Your task to perform on an android device: Search for the best gaming mouses on Amazon. Image 0: 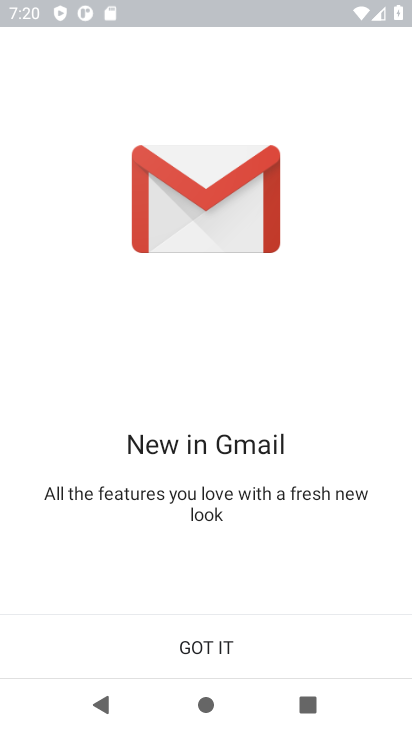
Step 0: press home button
Your task to perform on an android device: Search for the best gaming mouses on Amazon. Image 1: 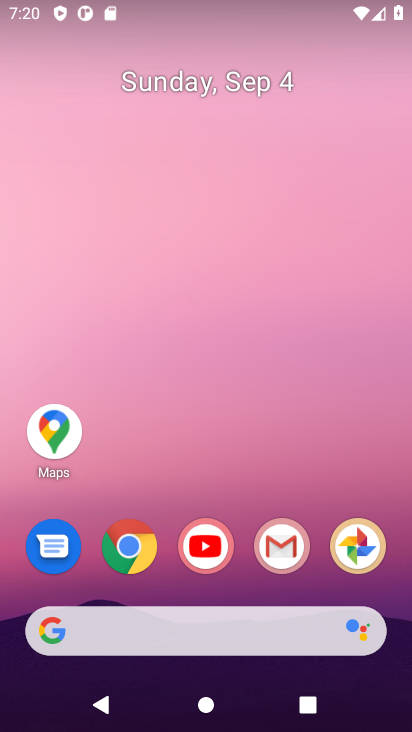
Step 1: click (132, 557)
Your task to perform on an android device: Search for the best gaming mouses on Amazon. Image 2: 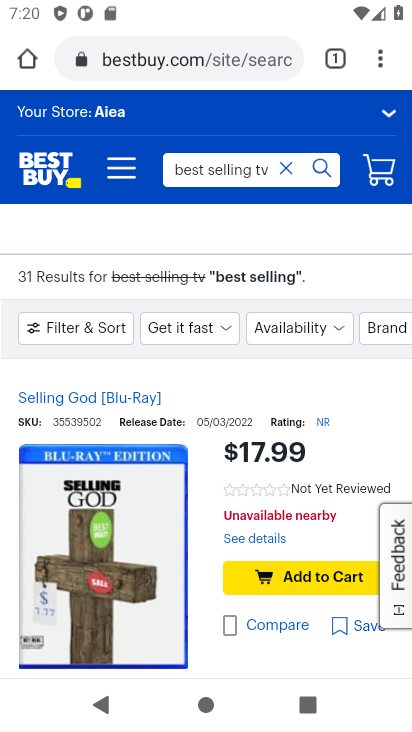
Step 2: click (170, 58)
Your task to perform on an android device: Search for the best gaming mouses on Amazon. Image 3: 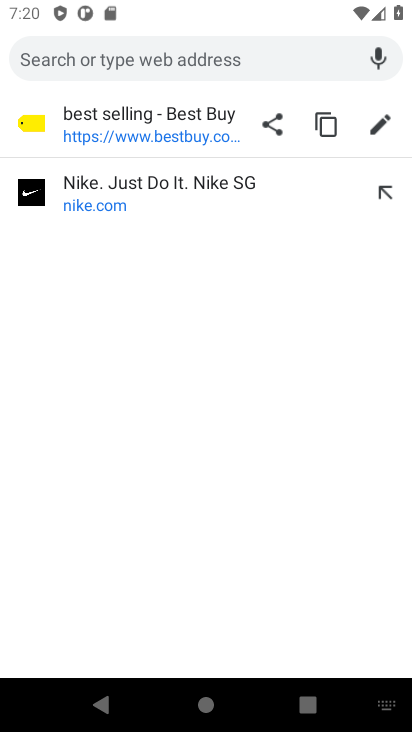
Step 3: type "amazon"
Your task to perform on an android device: Search for the best gaming mouses on Amazon. Image 4: 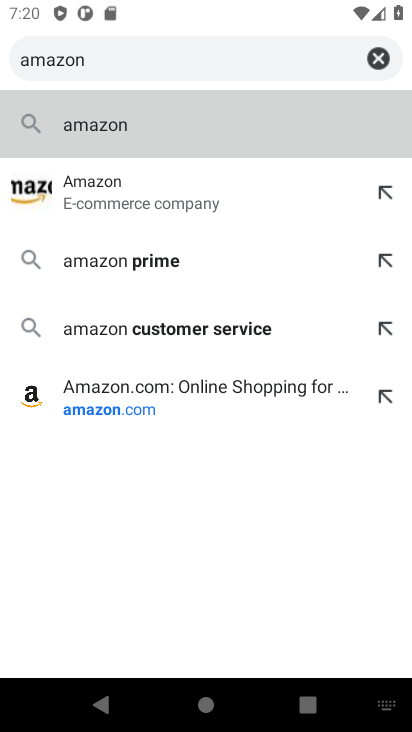
Step 4: click (66, 197)
Your task to perform on an android device: Search for the best gaming mouses on Amazon. Image 5: 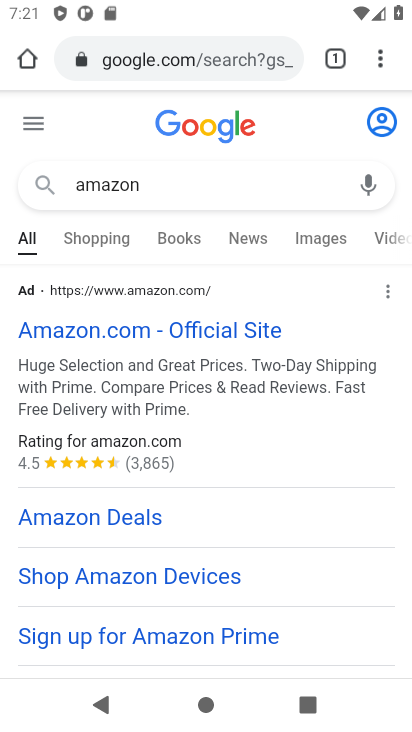
Step 5: click (104, 334)
Your task to perform on an android device: Search for the best gaming mouses on Amazon. Image 6: 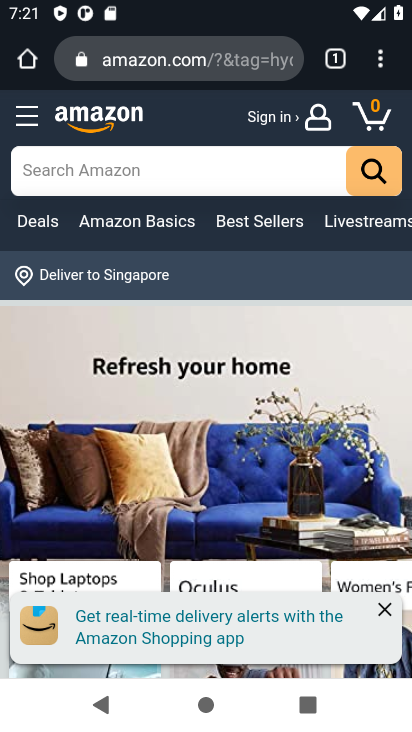
Step 6: click (109, 173)
Your task to perform on an android device: Search for the best gaming mouses on Amazon. Image 7: 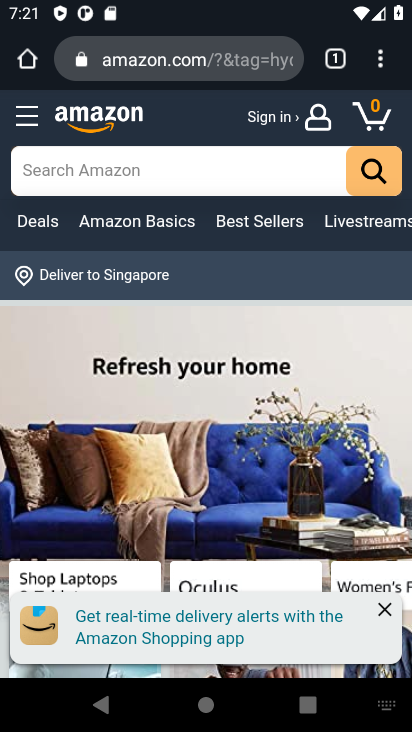
Step 7: type " best gaming mouses "
Your task to perform on an android device: Search for the best gaming mouses on Amazon. Image 8: 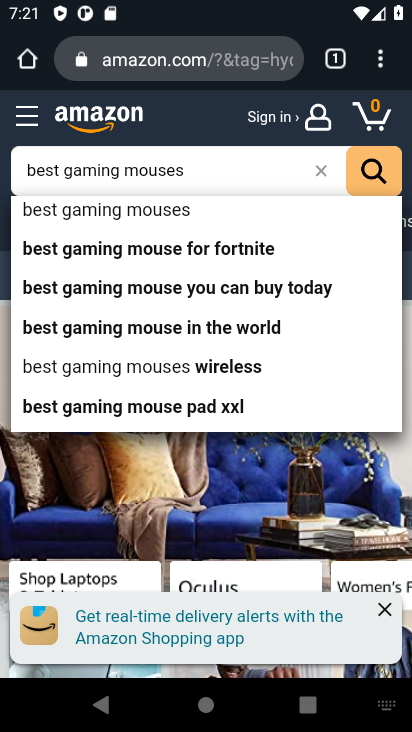
Step 8: click (71, 217)
Your task to perform on an android device: Search for the best gaming mouses on Amazon. Image 9: 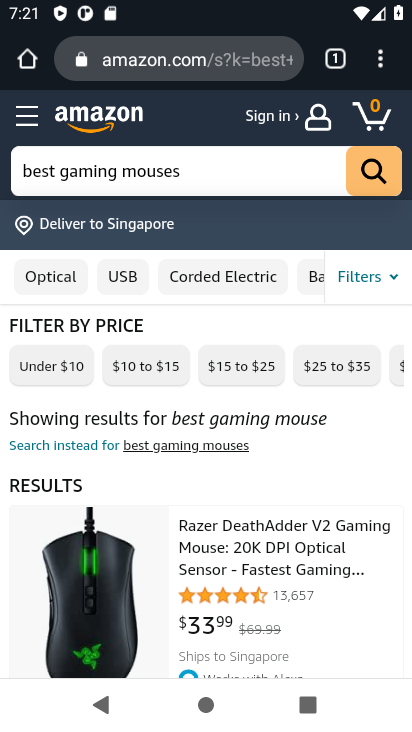
Step 9: task complete